Your task to perform on an android device: check battery use Image 0: 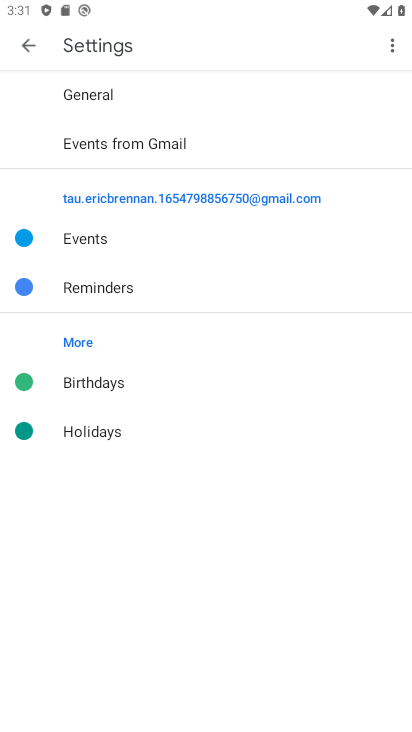
Step 0: press home button
Your task to perform on an android device: check battery use Image 1: 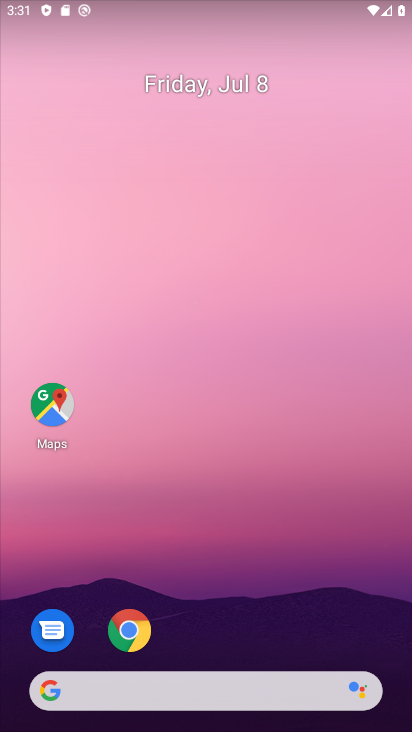
Step 1: drag from (258, 572) to (358, 12)
Your task to perform on an android device: check battery use Image 2: 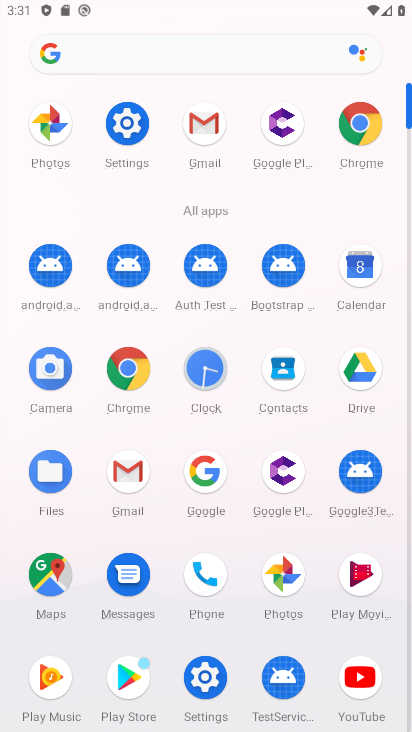
Step 2: click (119, 132)
Your task to perform on an android device: check battery use Image 3: 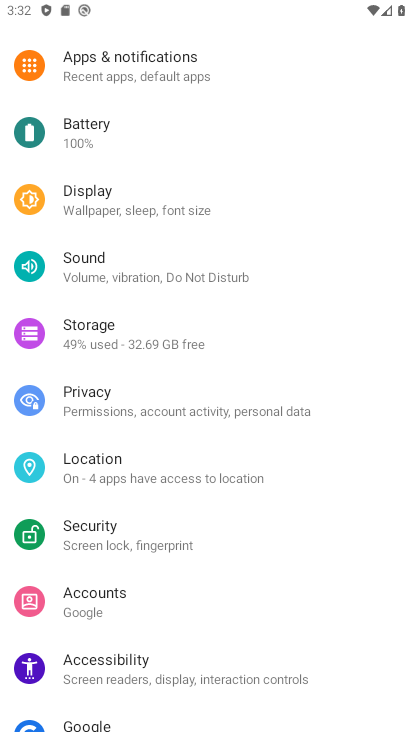
Step 3: click (122, 122)
Your task to perform on an android device: check battery use Image 4: 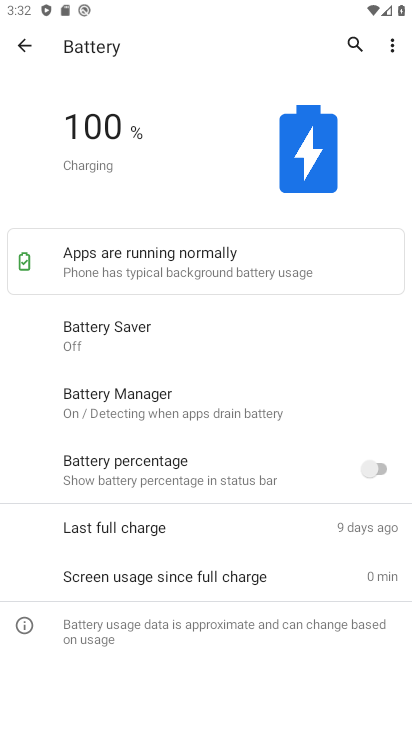
Step 4: click (385, 50)
Your task to perform on an android device: check battery use Image 5: 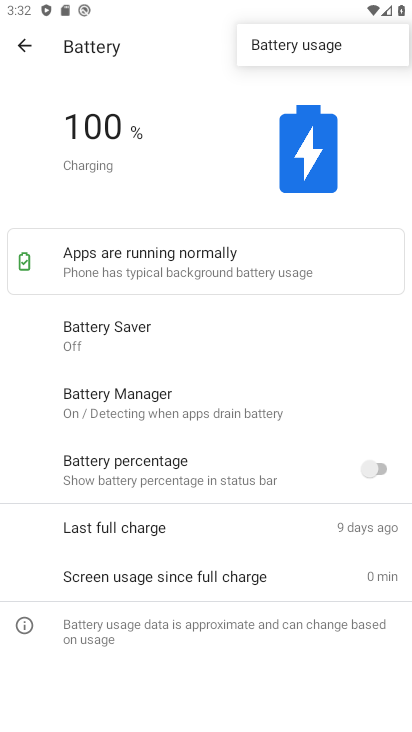
Step 5: click (354, 51)
Your task to perform on an android device: check battery use Image 6: 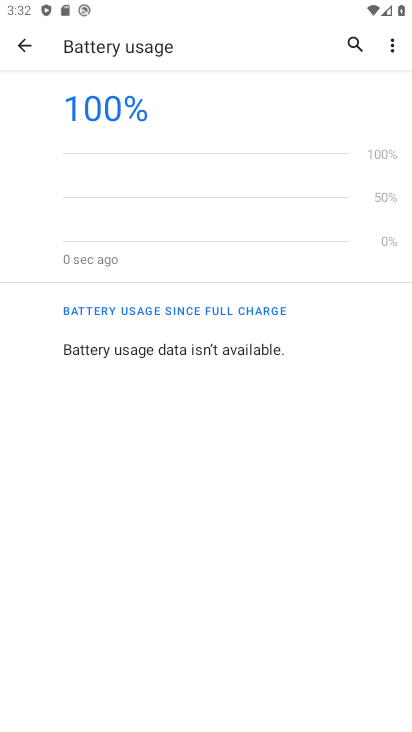
Step 6: task complete